Your task to perform on an android device: Find coffee shops on Maps Image 0: 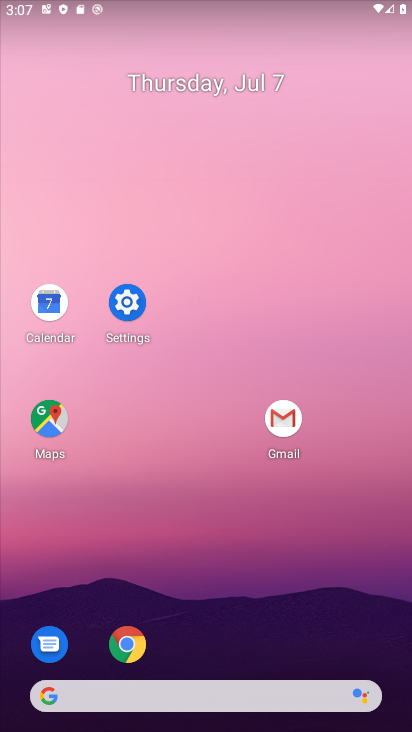
Step 0: click (49, 420)
Your task to perform on an android device: Find coffee shops on Maps Image 1: 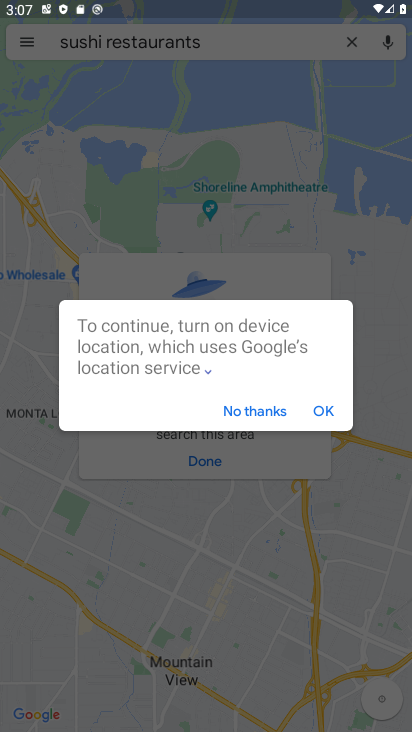
Step 1: click (318, 407)
Your task to perform on an android device: Find coffee shops on Maps Image 2: 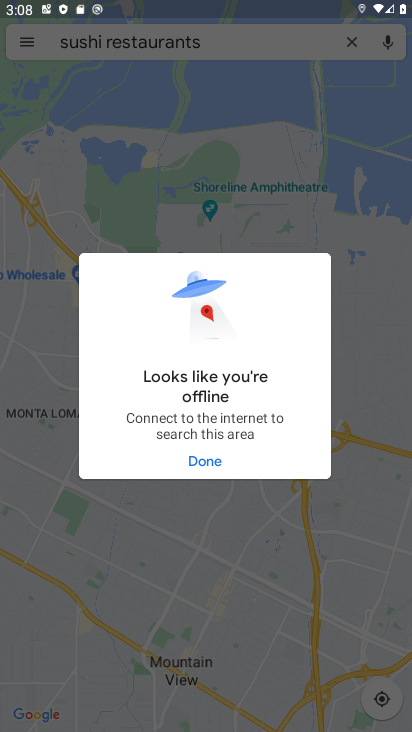
Step 2: press back button
Your task to perform on an android device: Find coffee shops on Maps Image 3: 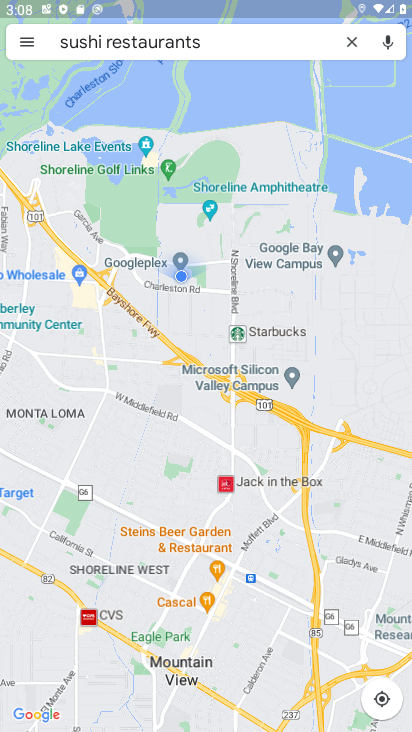
Step 3: click (352, 39)
Your task to perform on an android device: Find coffee shops on Maps Image 4: 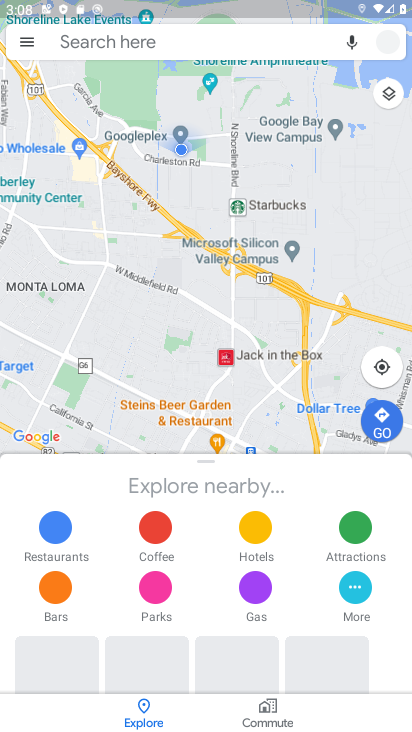
Step 4: click (156, 46)
Your task to perform on an android device: Find coffee shops on Maps Image 5: 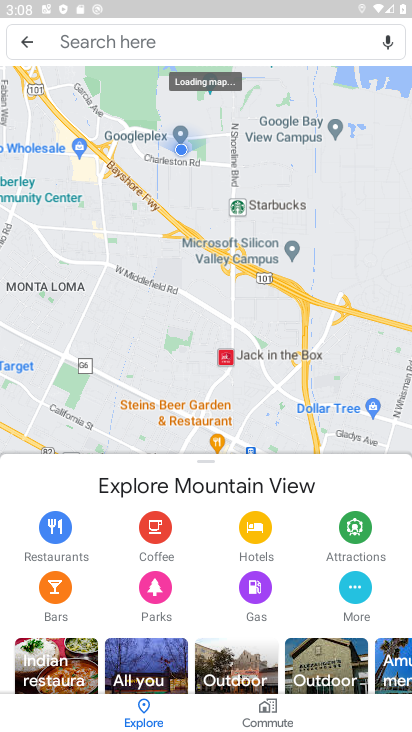
Step 5: click (68, 37)
Your task to perform on an android device: Find coffee shops on Maps Image 6: 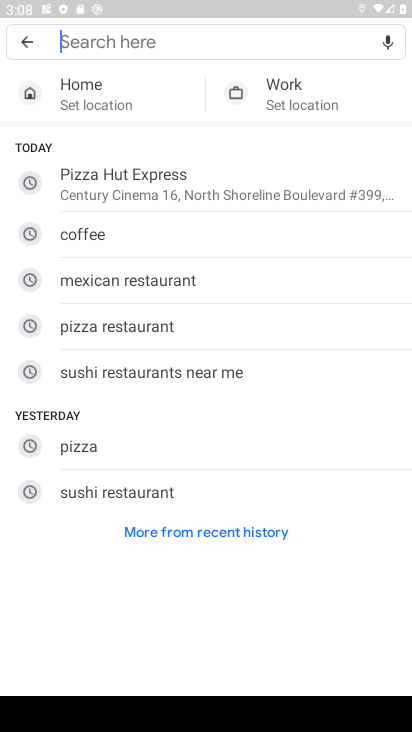
Step 6: type "coffee shops"
Your task to perform on an android device: Find coffee shops on Maps Image 7: 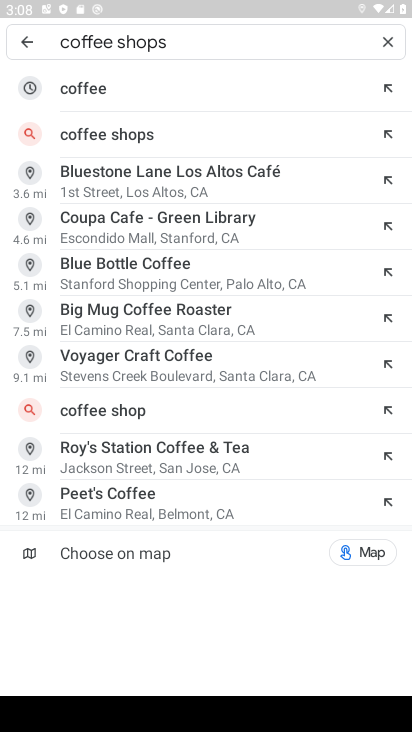
Step 7: click (83, 129)
Your task to perform on an android device: Find coffee shops on Maps Image 8: 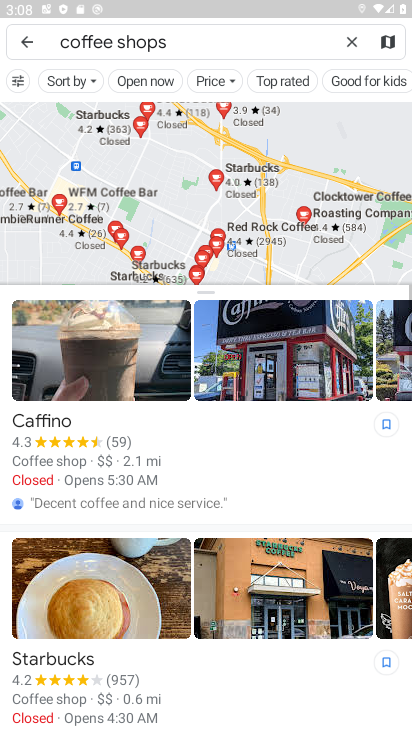
Step 8: task complete